Your task to perform on an android device: toggle airplane mode Image 0: 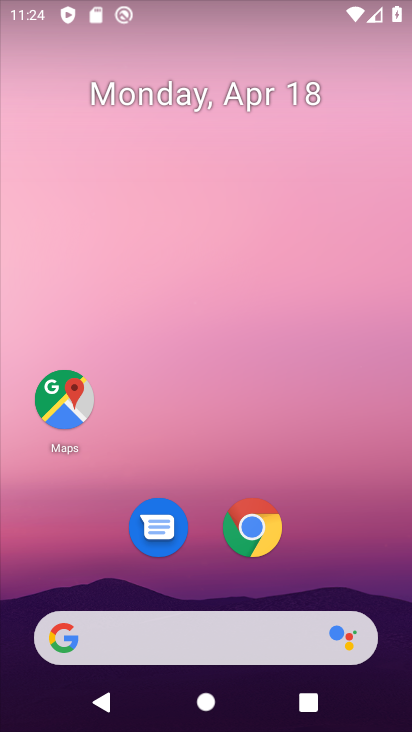
Step 0: drag from (306, 567) to (319, 189)
Your task to perform on an android device: toggle airplane mode Image 1: 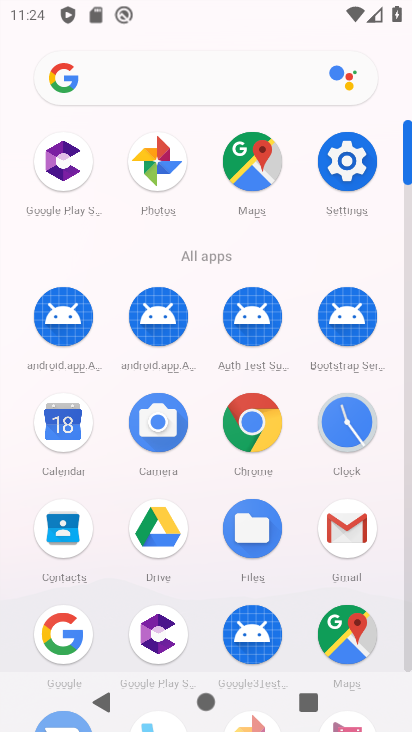
Step 1: click (346, 166)
Your task to perform on an android device: toggle airplane mode Image 2: 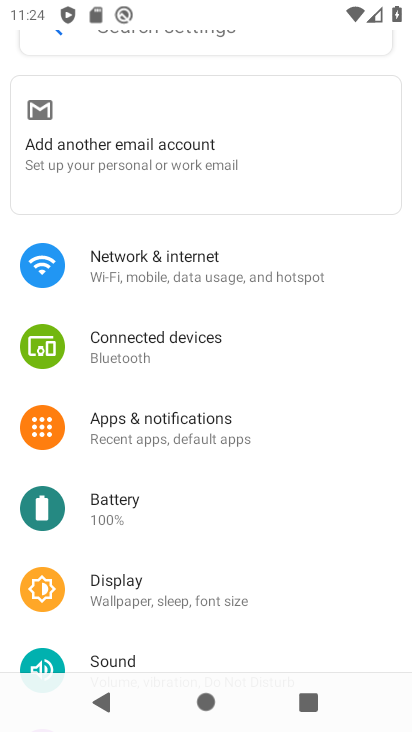
Step 2: click (205, 257)
Your task to perform on an android device: toggle airplane mode Image 3: 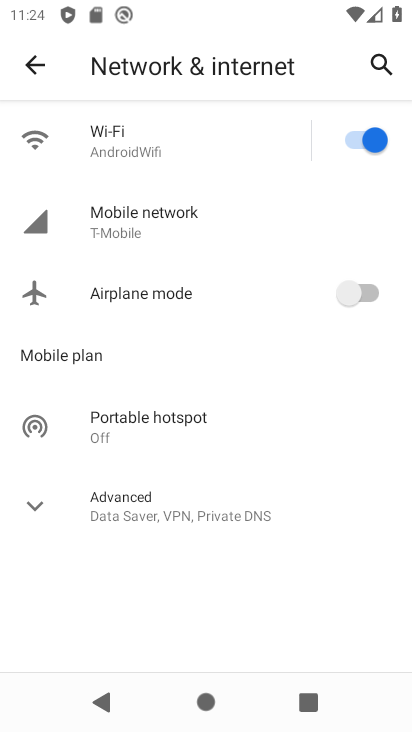
Step 3: click (341, 292)
Your task to perform on an android device: toggle airplane mode Image 4: 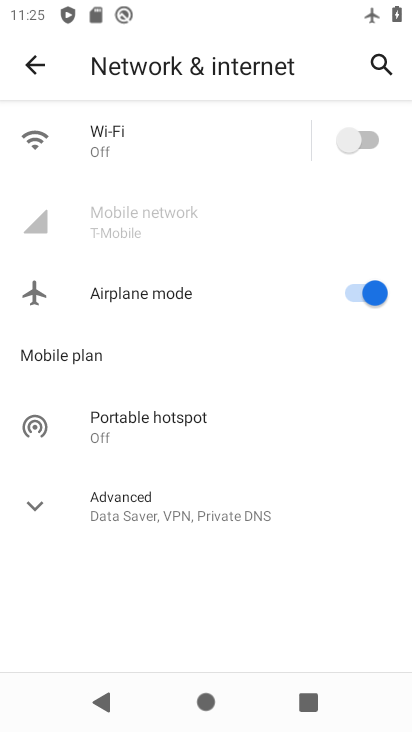
Step 4: task complete